Your task to perform on an android device: Is it going to rain this weekend? Image 0: 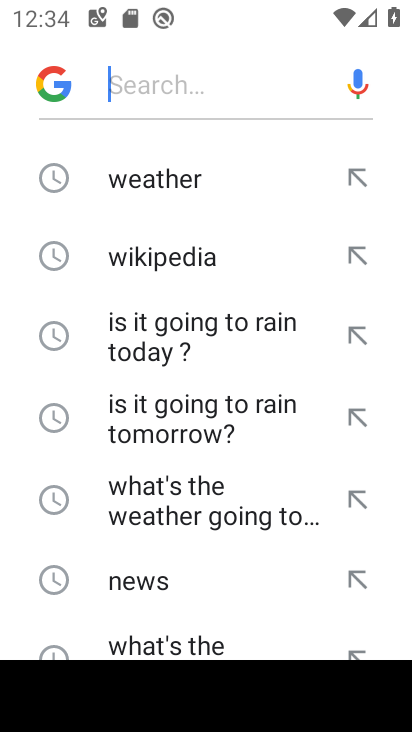
Step 0: click (213, 187)
Your task to perform on an android device: Is it going to rain this weekend? Image 1: 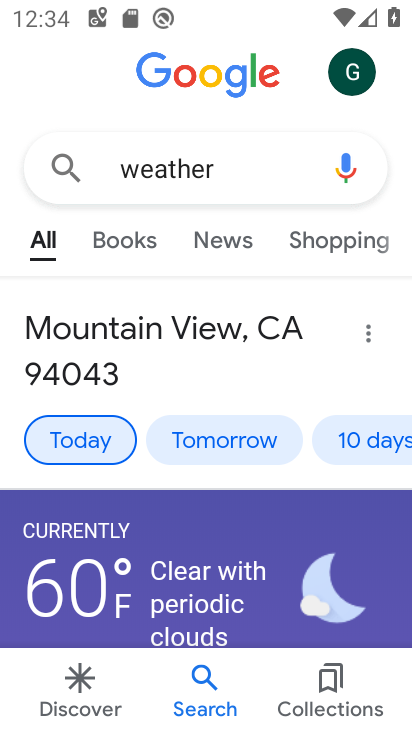
Step 1: click (358, 441)
Your task to perform on an android device: Is it going to rain this weekend? Image 2: 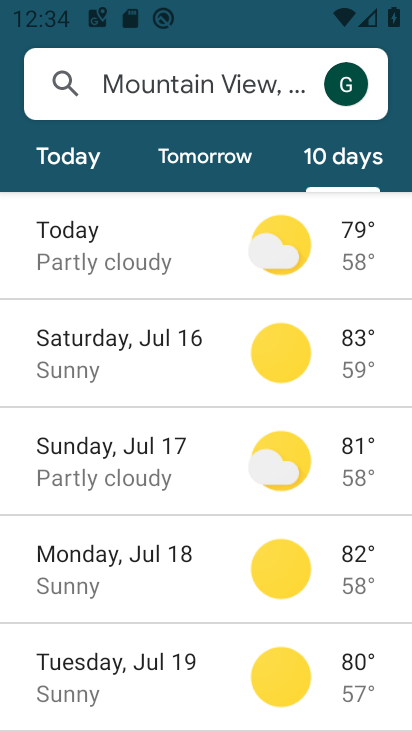
Step 2: click (197, 469)
Your task to perform on an android device: Is it going to rain this weekend? Image 3: 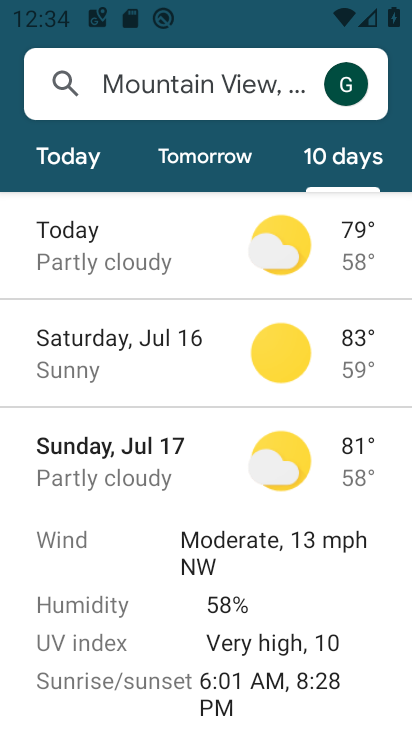
Step 3: task complete